Your task to perform on an android device: Go to Amazon Image 0: 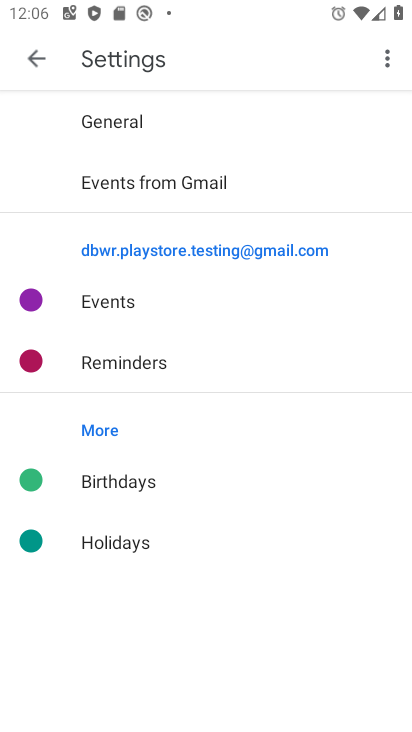
Step 0: press home button
Your task to perform on an android device: Go to Amazon Image 1: 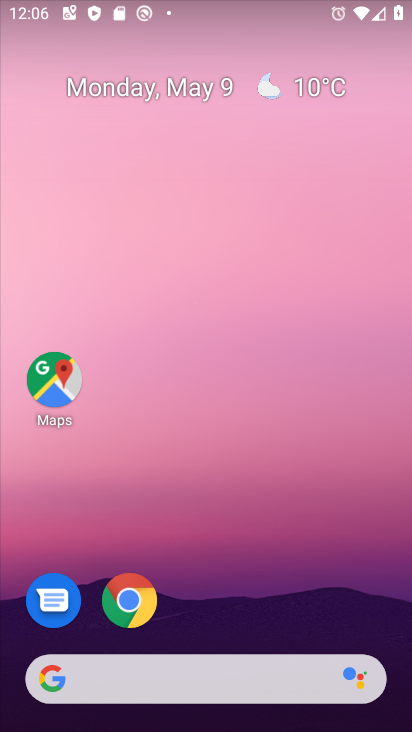
Step 1: click (129, 600)
Your task to perform on an android device: Go to Amazon Image 2: 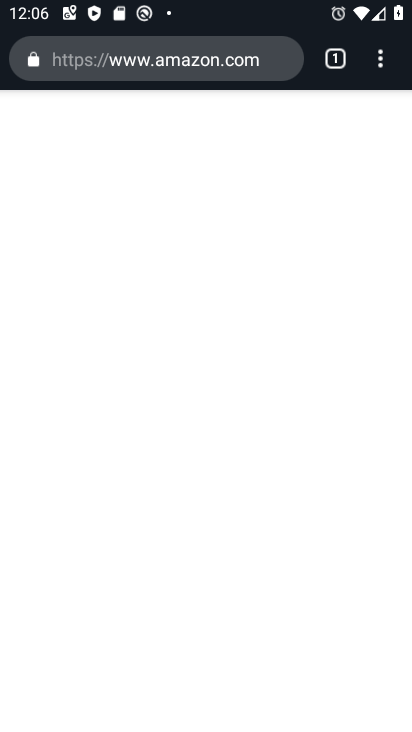
Step 2: click (89, 65)
Your task to perform on an android device: Go to Amazon Image 3: 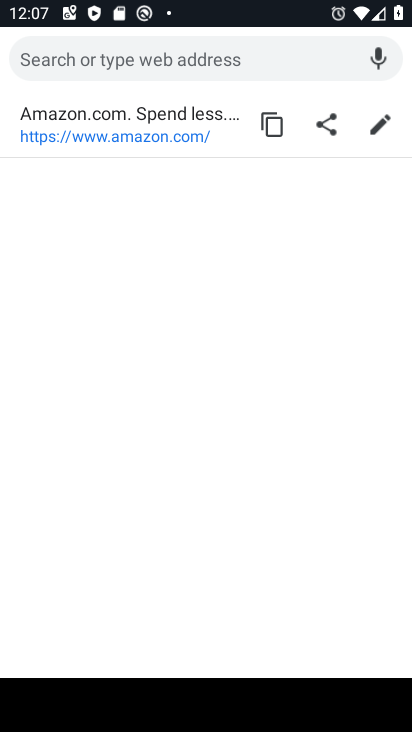
Step 3: type "amazon"
Your task to perform on an android device: Go to Amazon Image 4: 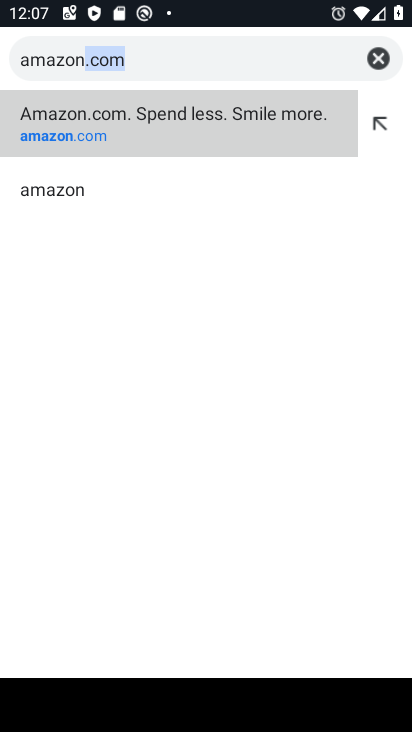
Step 4: click (65, 191)
Your task to perform on an android device: Go to Amazon Image 5: 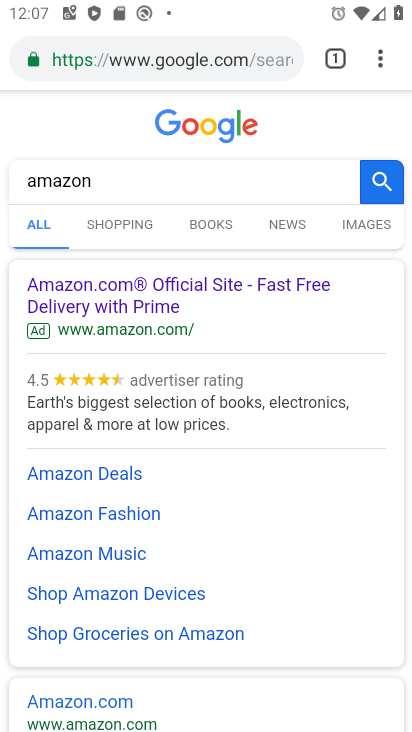
Step 5: task complete